Your task to perform on an android device: Go to privacy settings Image 0: 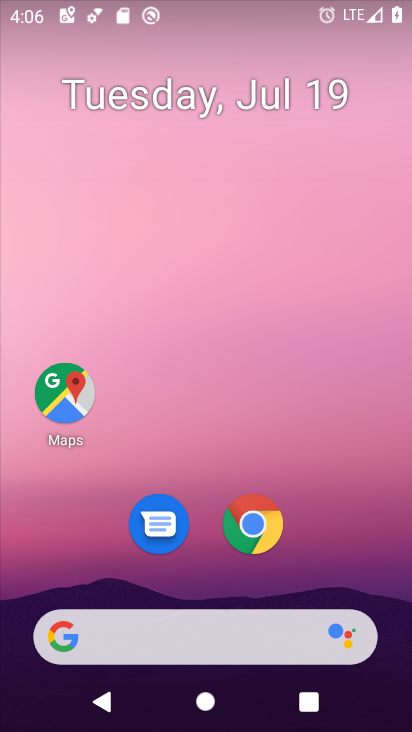
Step 0: drag from (333, 528) to (262, 26)
Your task to perform on an android device: Go to privacy settings Image 1: 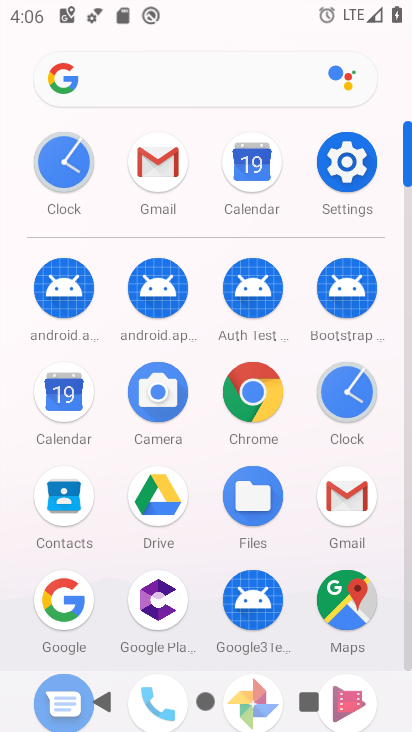
Step 1: click (331, 162)
Your task to perform on an android device: Go to privacy settings Image 2: 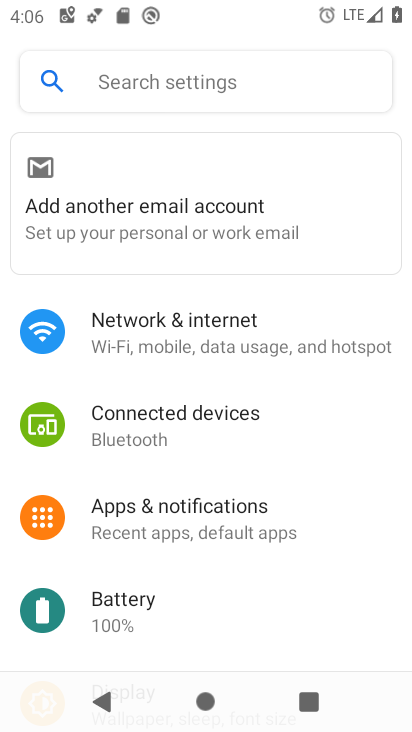
Step 2: drag from (281, 593) to (266, 97)
Your task to perform on an android device: Go to privacy settings Image 3: 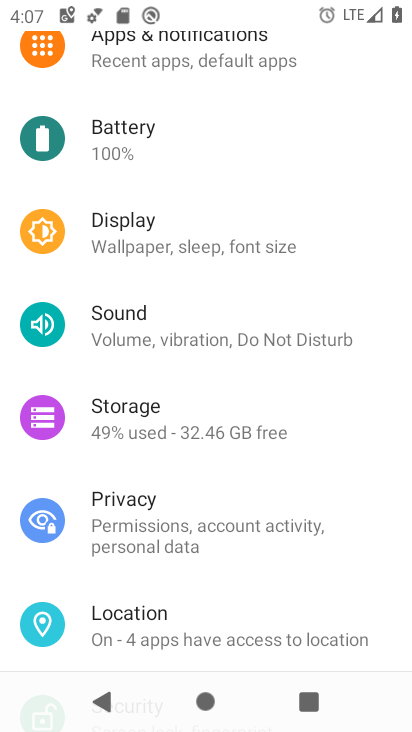
Step 3: click (189, 529)
Your task to perform on an android device: Go to privacy settings Image 4: 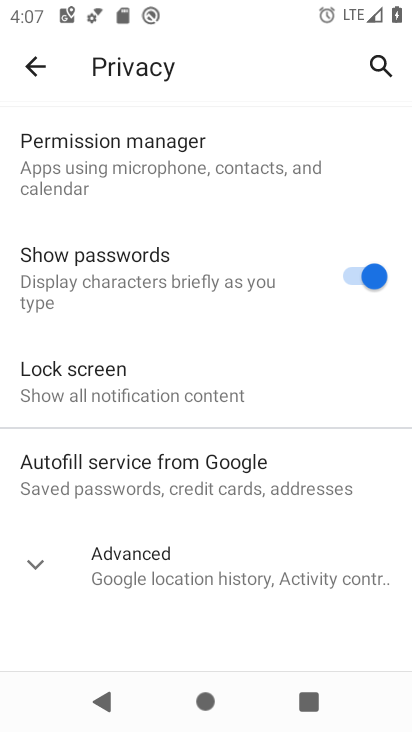
Step 4: task complete